Your task to perform on an android device: See recent photos Image 0: 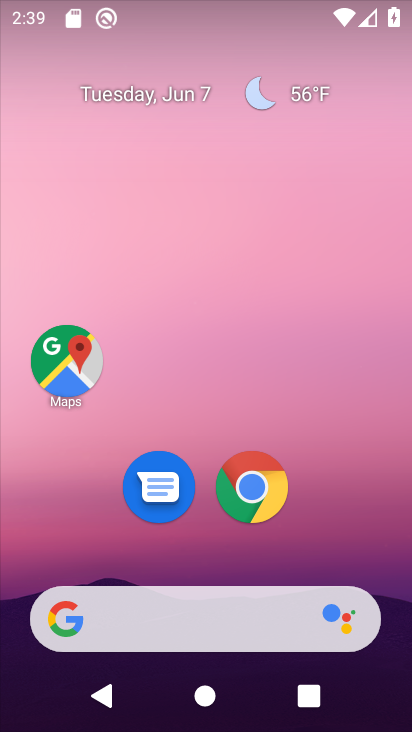
Step 0: drag from (401, 572) to (368, 184)
Your task to perform on an android device: See recent photos Image 1: 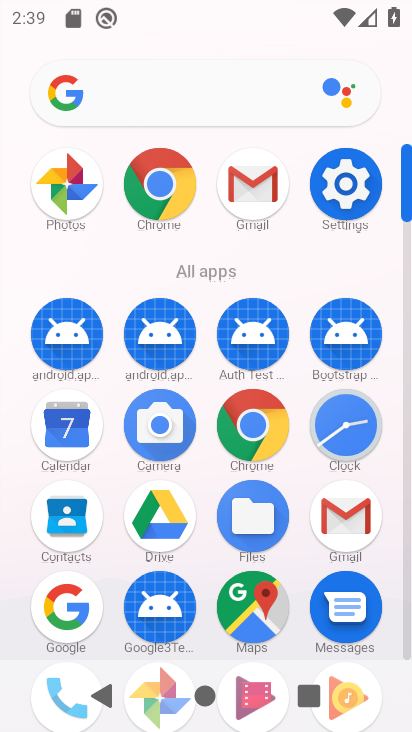
Step 1: click (55, 203)
Your task to perform on an android device: See recent photos Image 2: 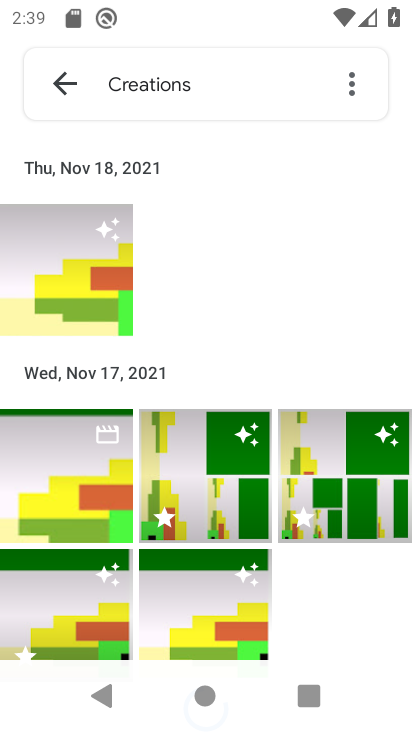
Step 2: click (61, 70)
Your task to perform on an android device: See recent photos Image 3: 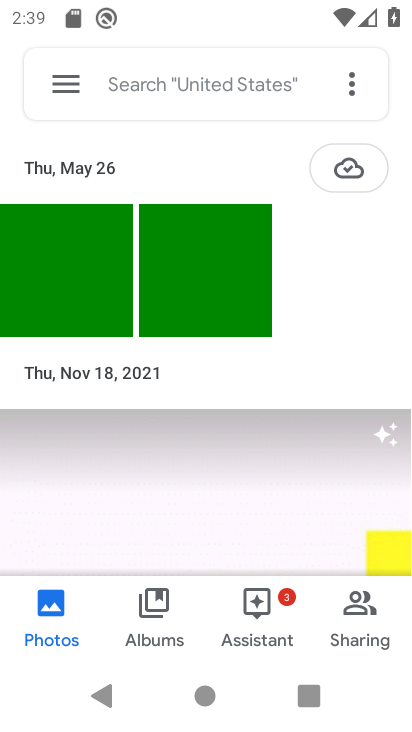
Step 3: task complete